Your task to perform on an android device: change the clock style Image 0: 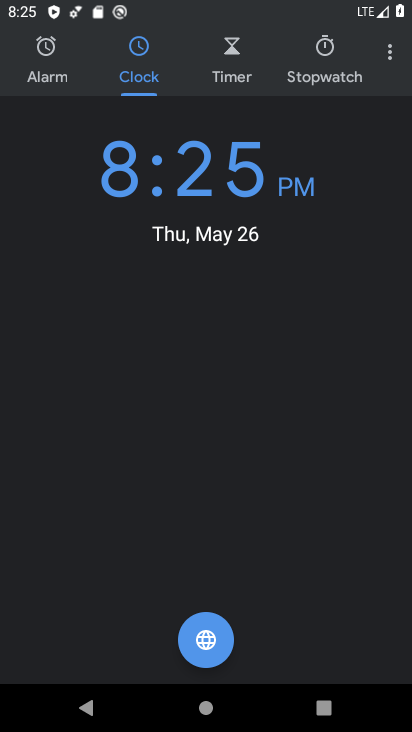
Step 0: press home button
Your task to perform on an android device: change the clock style Image 1: 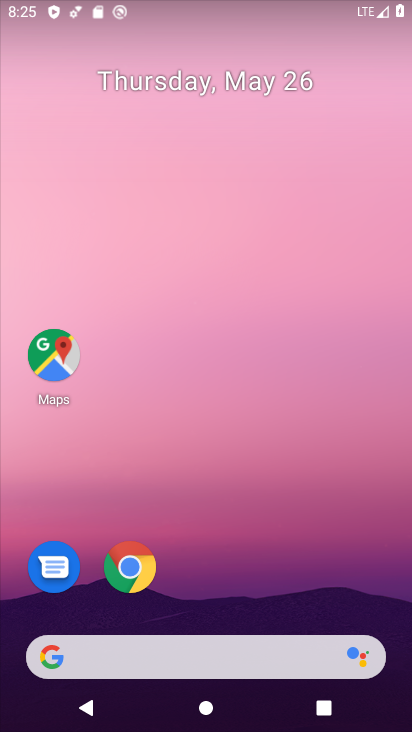
Step 1: drag from (283, 685) to (182, 48)
Your task to perform on an android device: change the clock style Image 2: 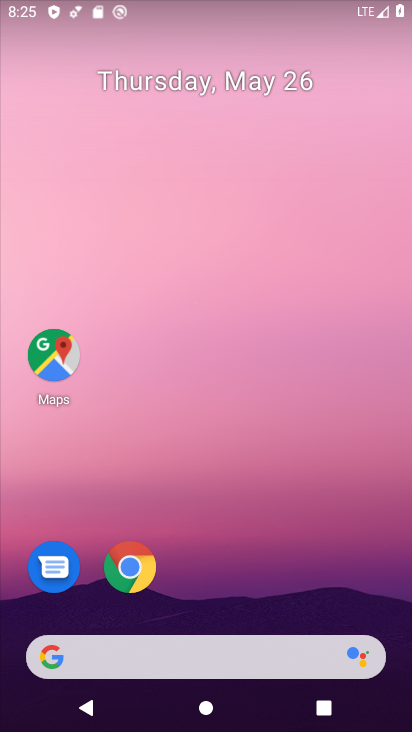
Step 2: drag from (261, 702) to (345, 0)
Your task to perform on an android device: change the clock style Image 3: 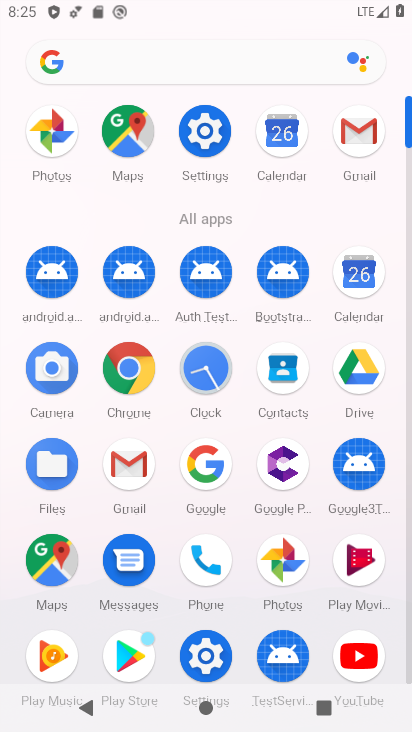
Step 3: click (210, 387)
Your task to perform on an android device: change the clock style Image 4: 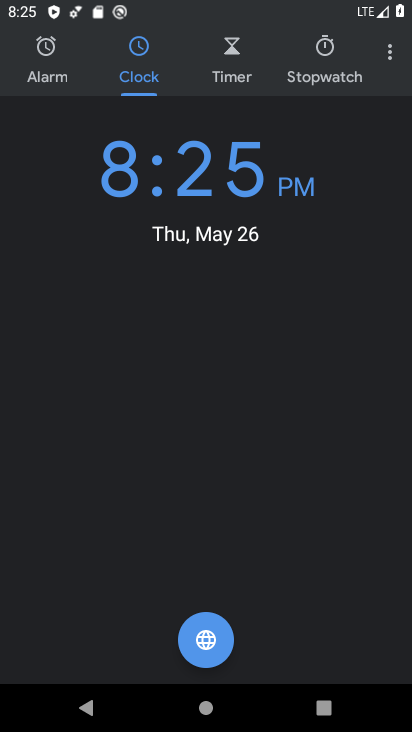
Step 4: click (390, 50)
Your task to perform on an android device: change the clock style Image 5: 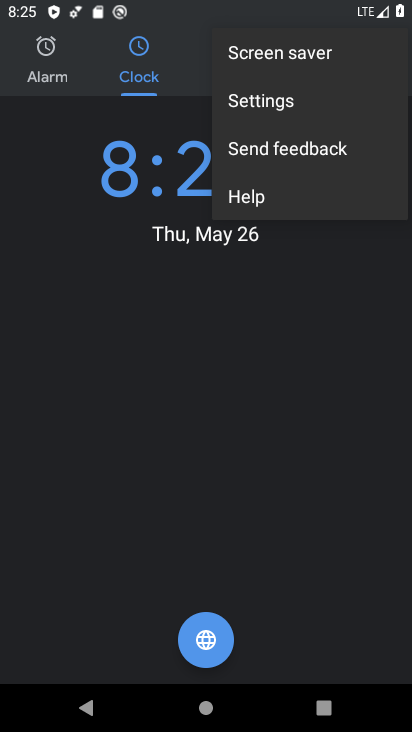
Step 5: click (325, 99)
Your task to perform on an android device: change the clock style Image 6: 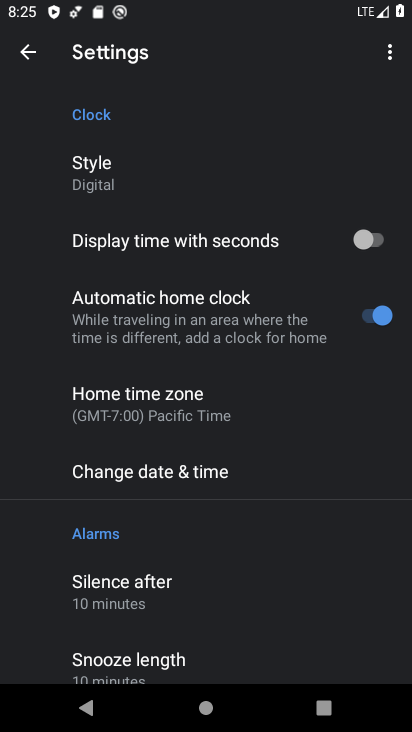
Step 6: click (131, 179)
Your task to perform on an android device: change the clock style Image 7: 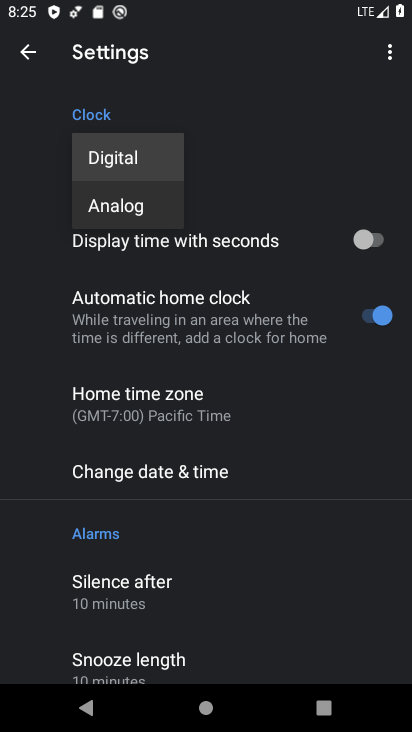
Step 7: click (126, 209)
Your task to perform on an android device: change the clock style Image 8: 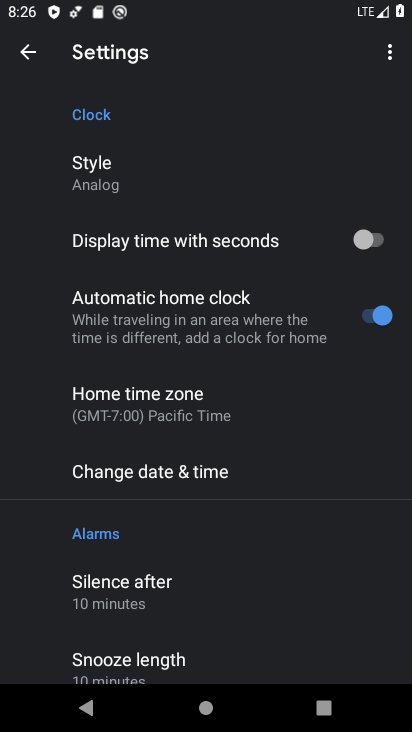
Step 8: task complete